Your task to perform on an android device: turn off smart reply in the gmail app Image 0: 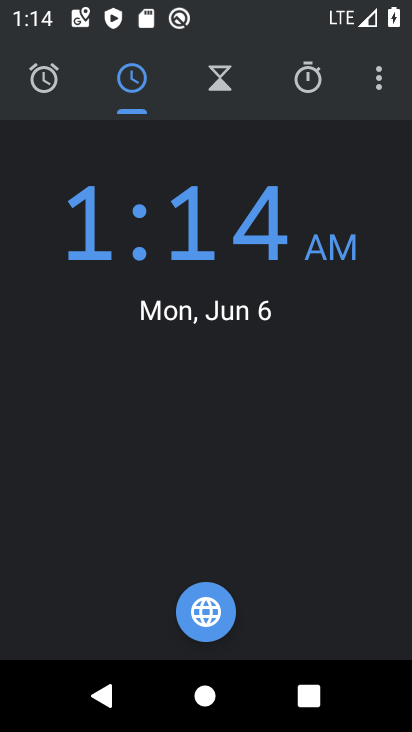
Step 0: press back button
Your task to perform on an android device: turn off smart reply in the gmail app Image 1: 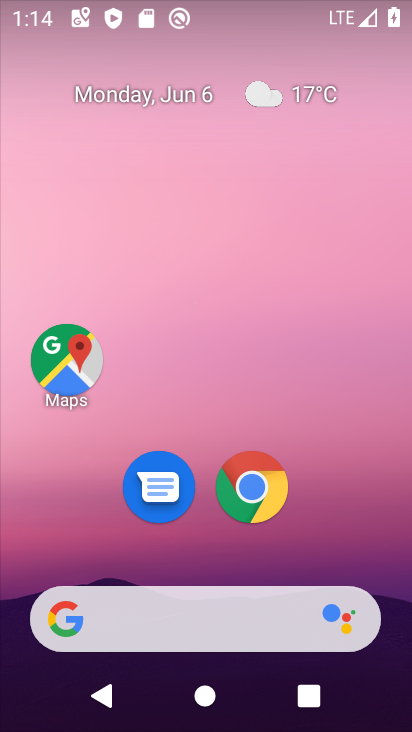
Step 1: drag from (173, 537) to (258, 52)
Your task to perform on an android device: turn off smart reply in the gmail app Image 2: 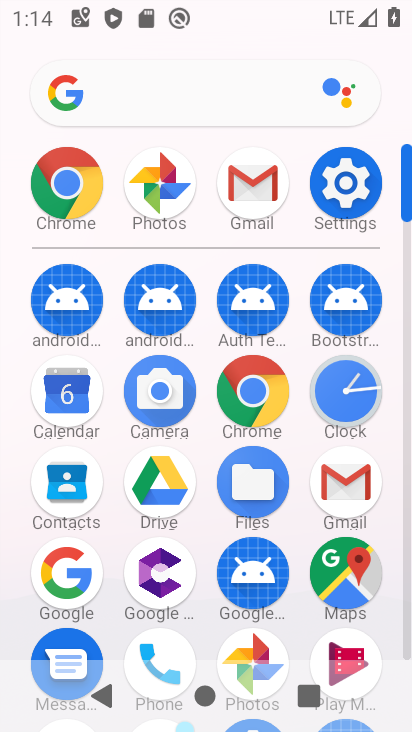
Step 2: click (263, 180)
Your task to perform on an android device: turn off smart reply in the gmail app Image 3: 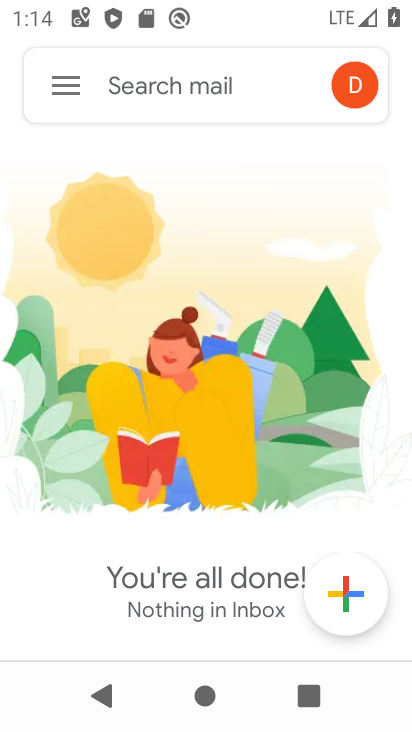
Step 3: click (70, 93)
Your task to perform on an android device: turn off smart reply in the gmail app Image 4: 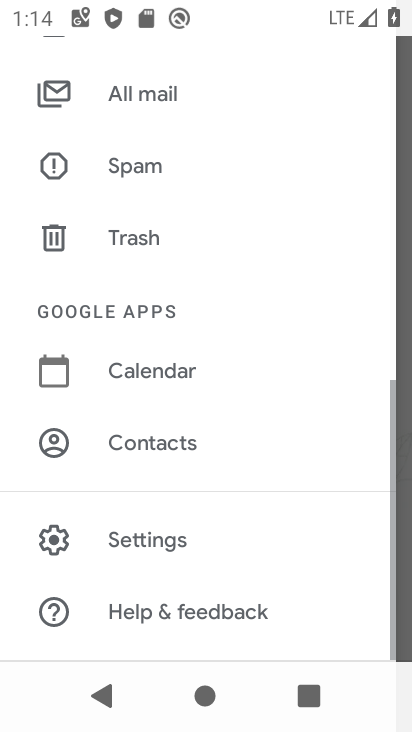
Step 4: click (211, 550)
Your task to perform on an android device: turn off smart reply in the gmail app Image 5: 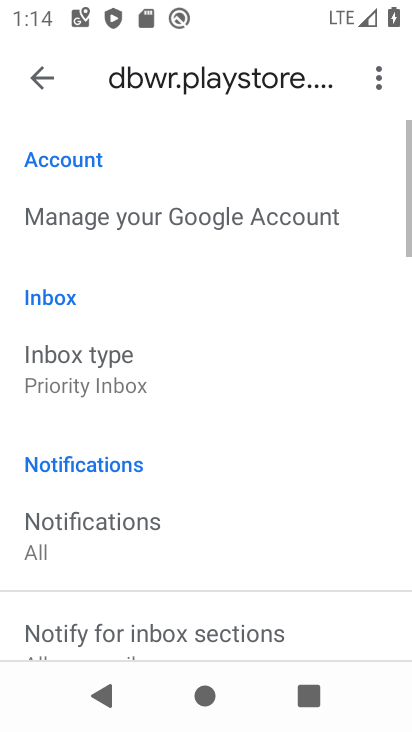
Step 5: drag from (118, 589) to (160, 85)
Your task to perform on an android device: turn off smart reply in the gmail app Image 6: 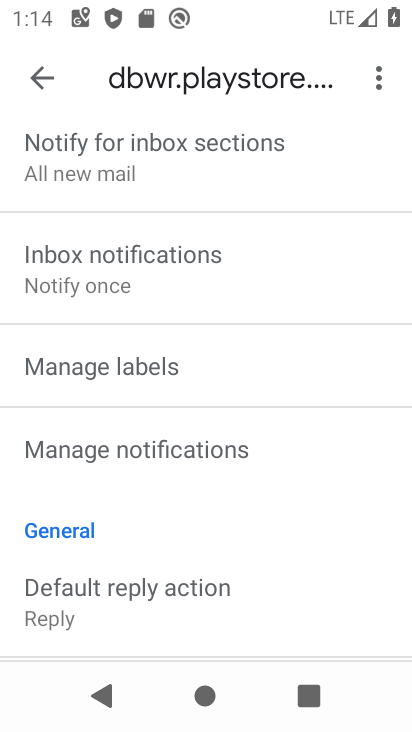
Step 6: drag from (156, 634) to (271, 92)
Your task to perform on an android device: turn off smart reply in the gmail app Image 7: 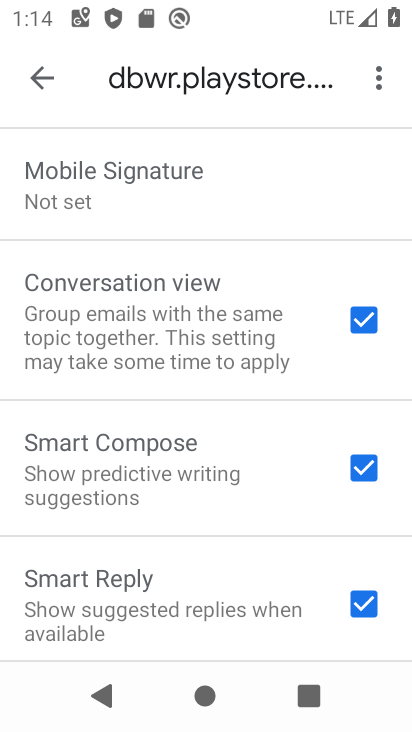
Step 7: click (365, 595)
Your task to perform on an android device: turn off smart reply in the gmail app Image 8: 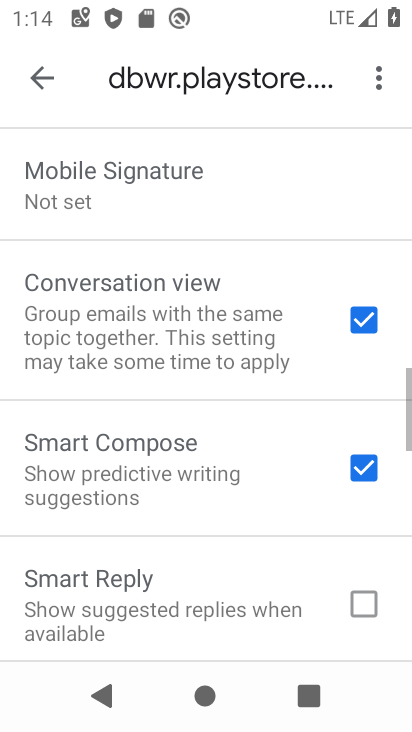
Step 8: task complete